Your task to perform on an android device: Go to accessibility settings Image 0: 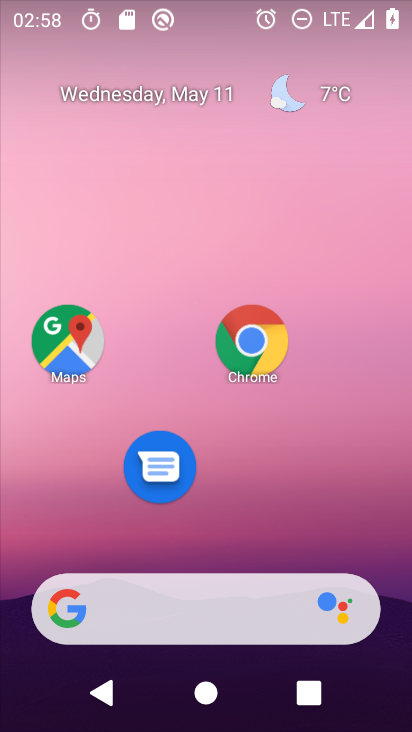
Step 0: drag from (155, 586) to (227, 107)
Your task to perform on an android device: Go to accessibility settings Image 1: 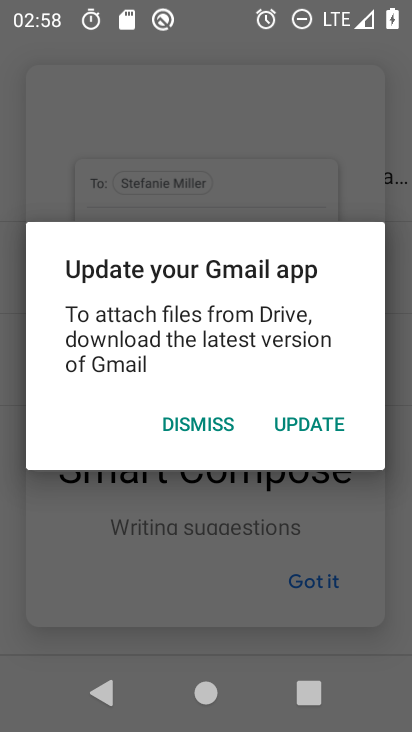
Step 1: press home button
Your task to perform on an android device: Go to accessibility settings Image 2: 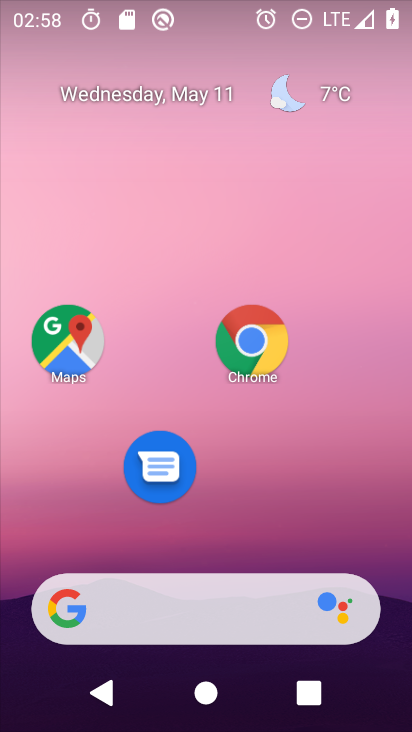
Step 2: drag from (176, 614) to (272, 128)
Your task to perform on an android device: Go to accessibility settings Image 3: 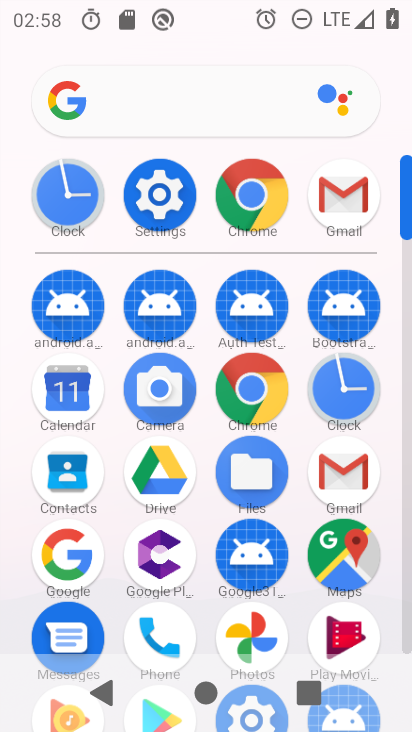
Step 3: click (166, 207)
Your task to perform on an android device: Go to accessibility settings Image 4: 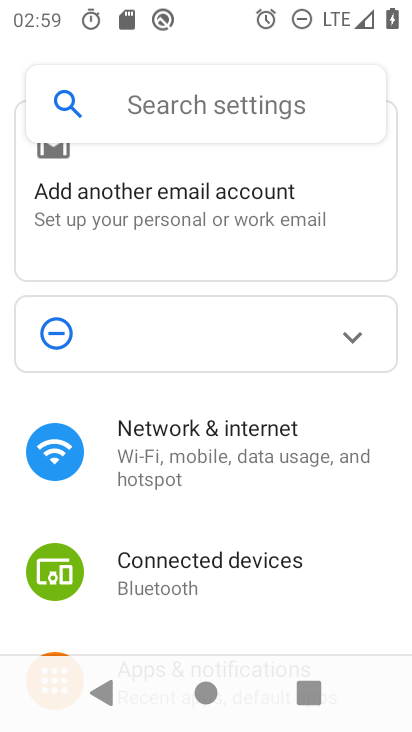
Step 4: drag from (215, 597) to (333, 159)
Your task to perform on an android device: Go to accessibility settings Image 5: 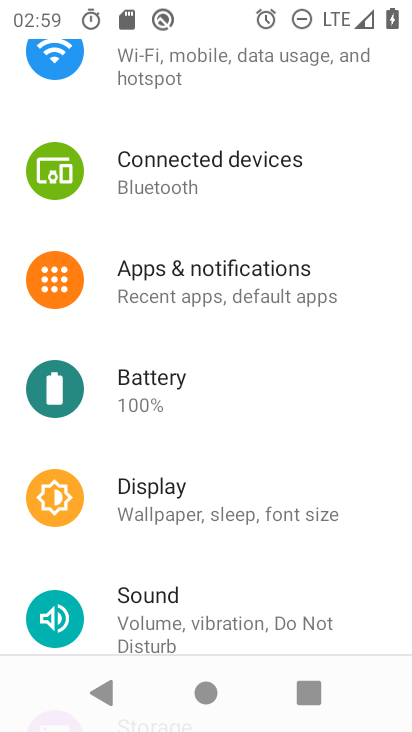
Step 5: drag from (196, 564) to (343, 156)
Your task to perform on an android device: Go to accessibility settings Image 6: 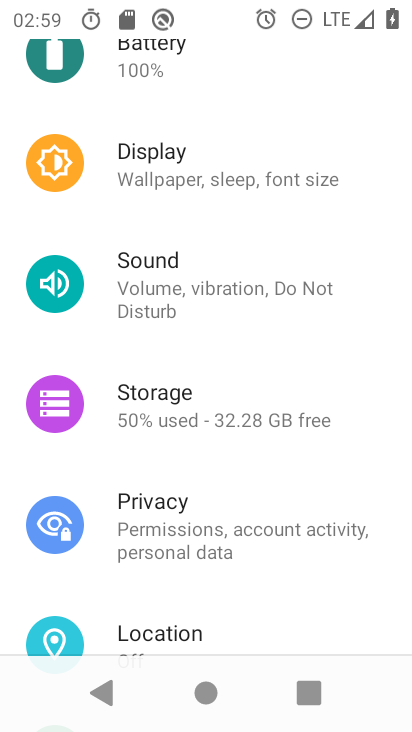
Step 6: drag from (212, 535) to (276, 166)
Your task to perform on an android device: Go to accessibility settings Image 7: 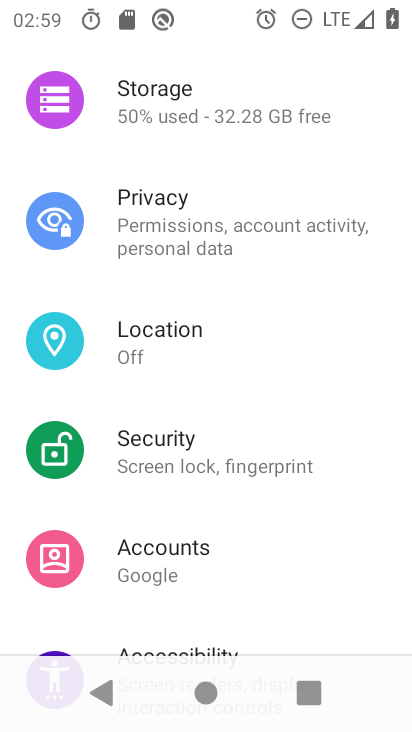
Step 7: drag from (213, 482) to (278, 172)
Your task to perform on an android device: Go to accessibility settings Image 8: 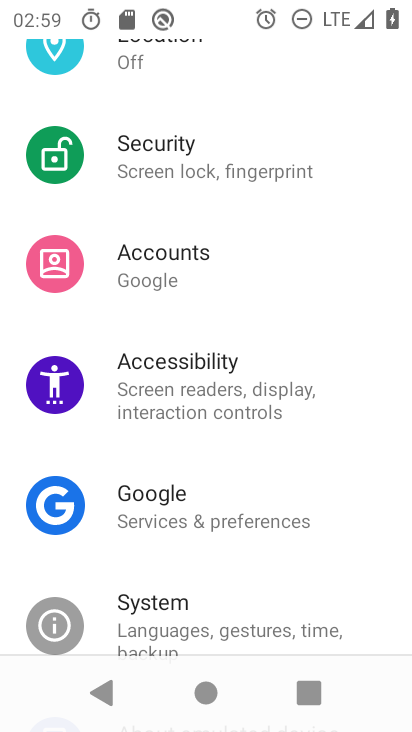
Step 8: click (169, 375)
Your task to perform on an android device: Go to accessibility settings Image 9: 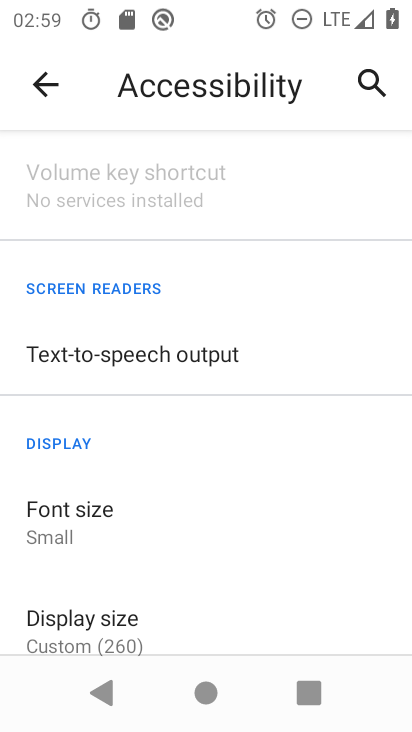
Step 9: task complete